Your task to perform on an android device: turn on bluetooth scan Image 0: 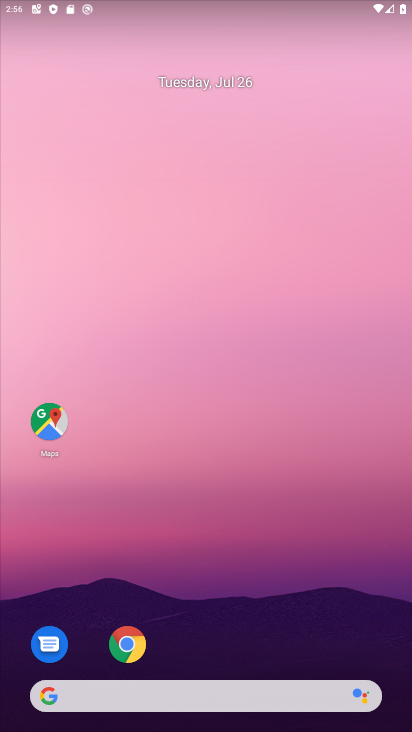
Step 0: drag from (186, 675) to (199, 189)
Your task to perform on an android device: turn on bluetooth scan Image 1: 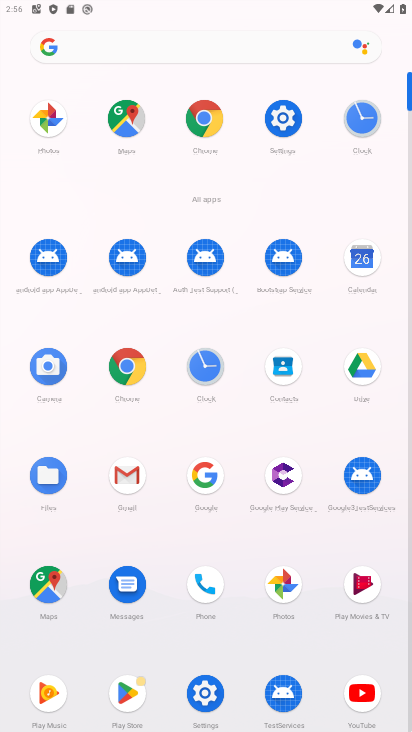
Step 1: click (273, 127)
Your task to perform on an android device: turn on bluetooth scan Image 2: 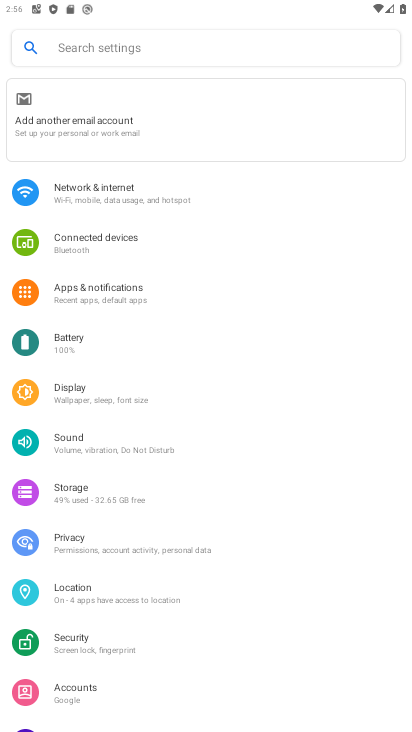
Step 2: click (86, 590)
Your task to perform on an android device: turn on bluetooth scan Image 3: 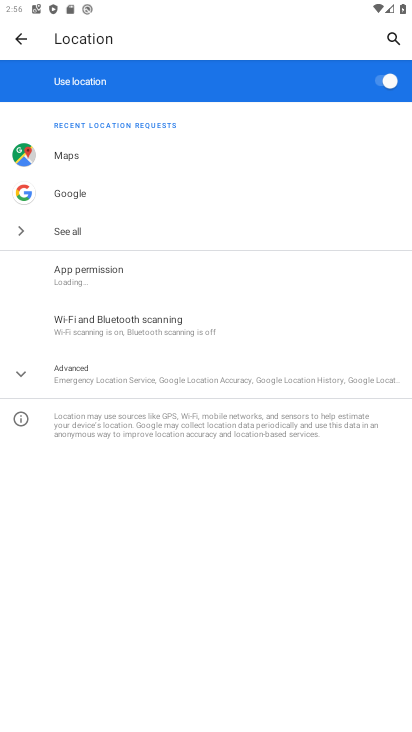
Step 3: click (81, 322)
Your task to perform on an android device: turn on bluetooth scan Image 4: 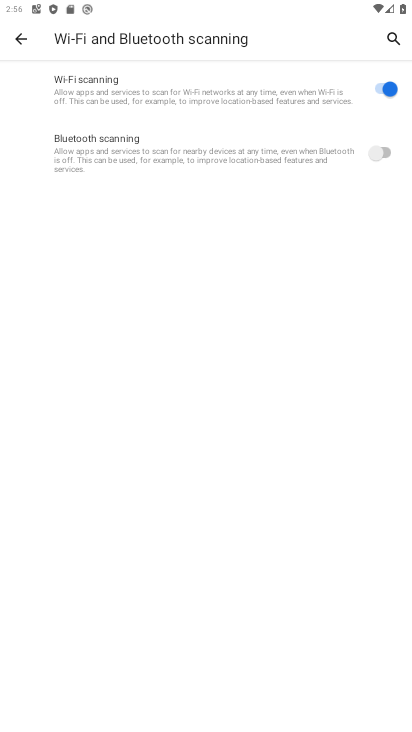
Step 4: click (386, 152)
Your task to perform on an android device: turn on bluetooth scan Image 5: 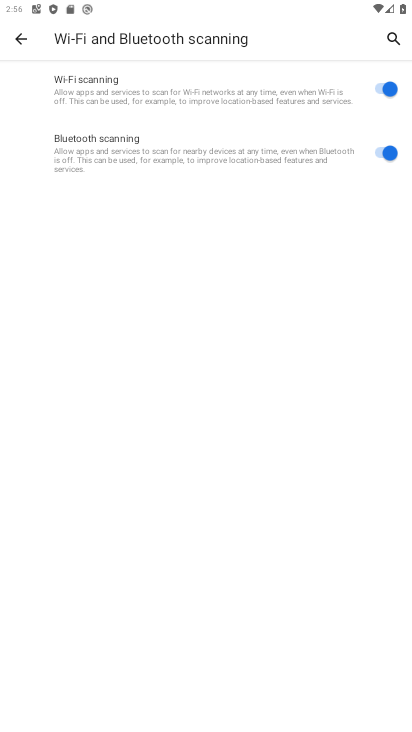
Step 5: task complete